Your task to perform on an android device: find which apps use the phone's location Image 0: 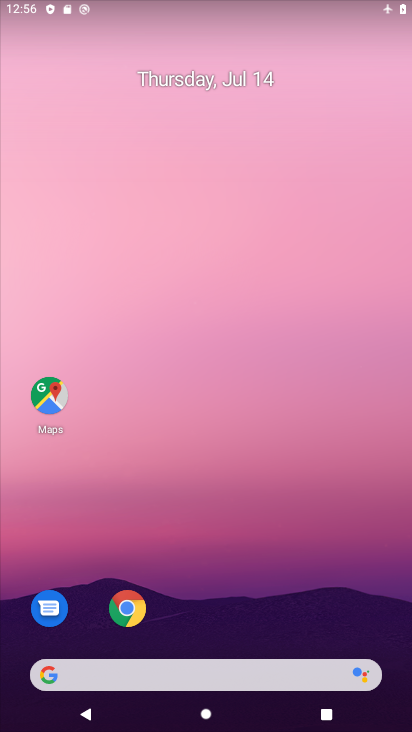
Step 0: drag from (361, 637) to (331, 101)
Your task to perform on an android device: find which apps use the phone's location Image 1: 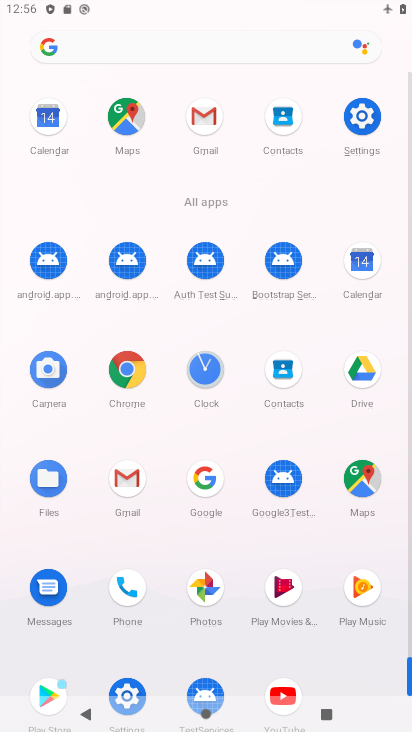
Step 1: click (128, 687)
Your task to perform on an android device: find which apps use the phone's location Image 2: 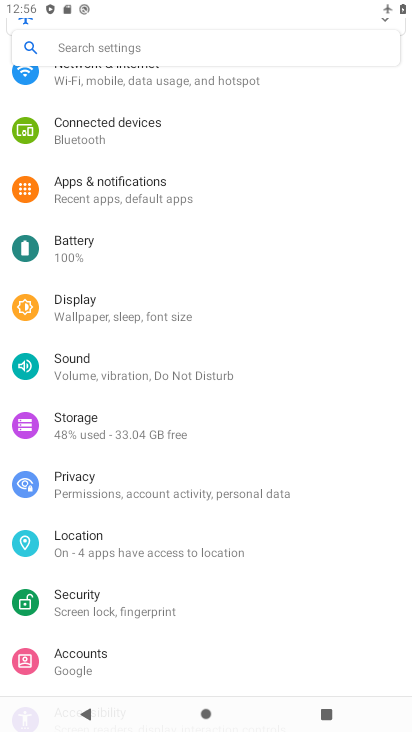
Step 2: click (76, 543)
Your task to perform on an android device: find which apps use the phone's location Image 3: 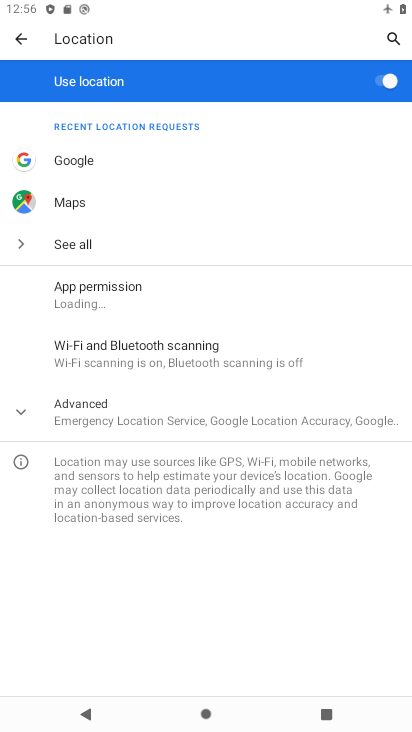
Step 3: click (94, 293)
Your task to perform on an android device: find which apps use the phone's location Image 4: 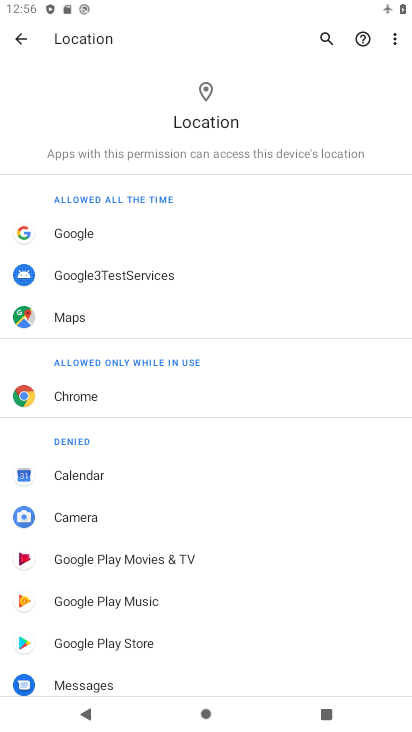
Step 4: drag from (143, 566) to (190, 173)
Your task to perform on an android device: find which apps use the phone's location Image 5: 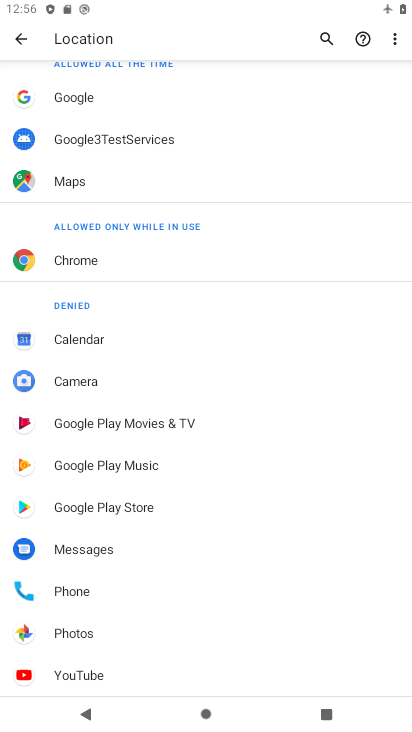
Step 5: click (80, 627)
Your task to perform on an android device: find which apps use the phone's location Image 6: 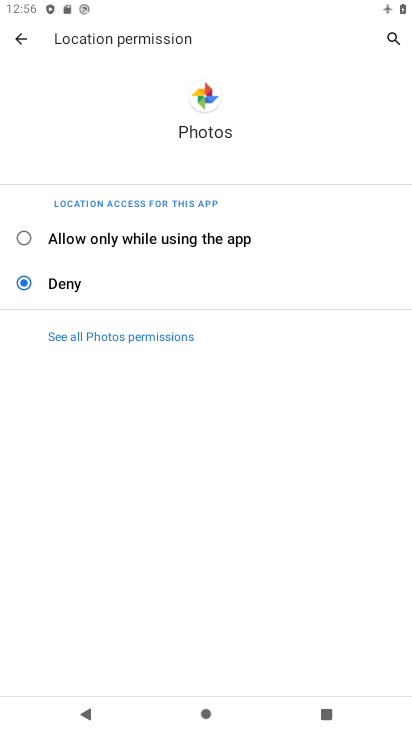
Step 6: task complete